Your task to perform on an android device: Go to wifi settings Image 0: 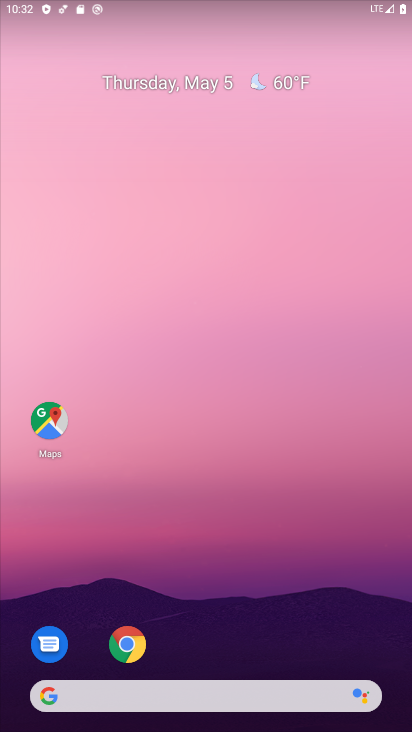
Step 0: drag from (374, 612) to (312, 85)
Your task to perform on an android device: Go to wifi settings Image 1: 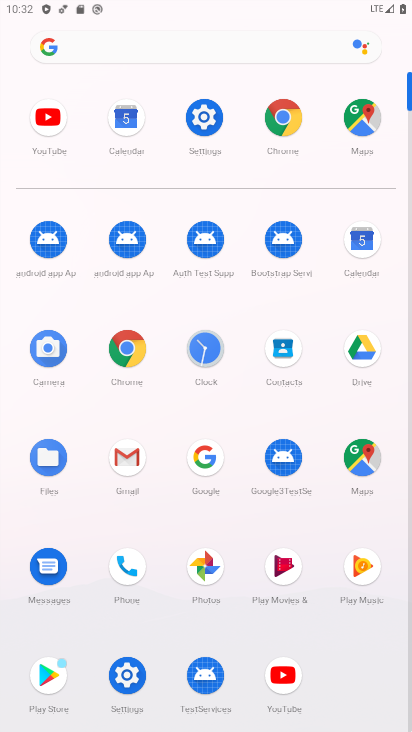
Step 1: click (125, 684)
Your task to perform on an android device: Go to wifi settings Image 2: 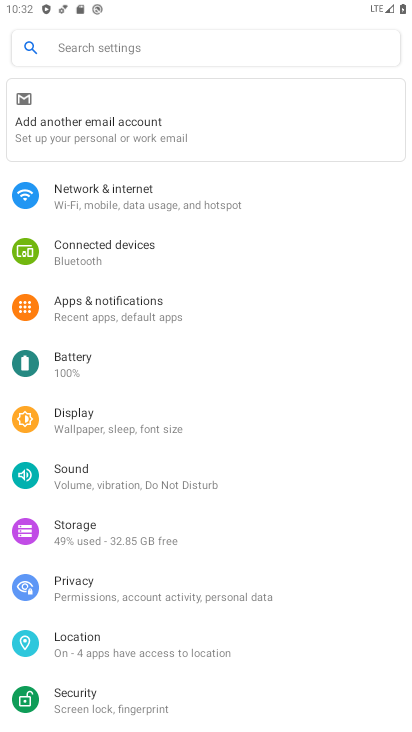
Step 2: click (167, 197)
Your task to perform on an android device: Go to wifi settings Image 3: 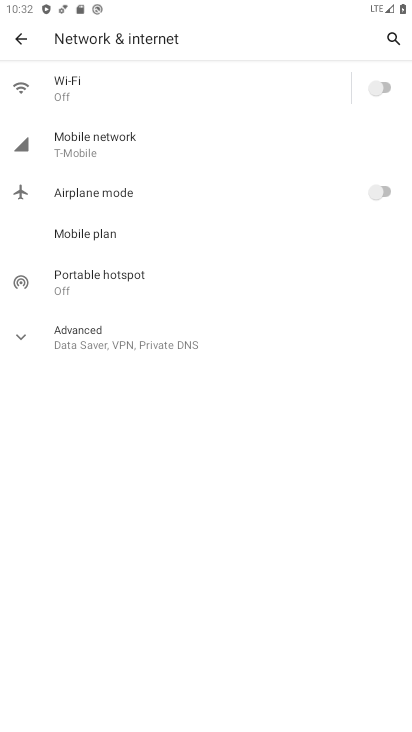
Step 3: click (202, 92)
Your task to perform on an android device: Go to wifi settings Image 4: 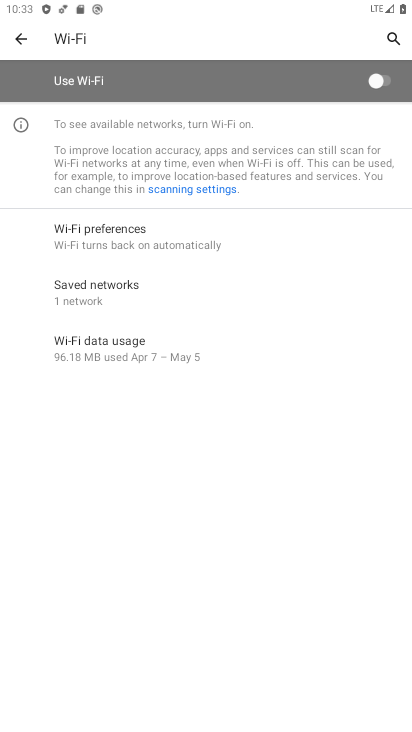
Step 4: task complete